Your task to perform on an android device: Open calendar and show me the fourth week of next month Image 0: 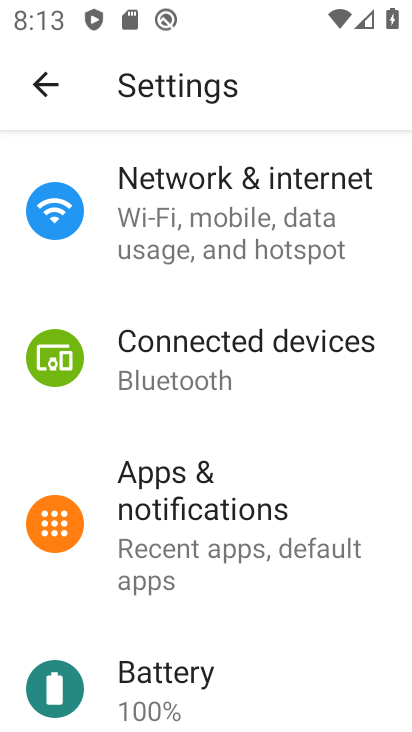
Step 0: press home button
Your task to perform on an android device: Open calendar and show me the fourth week of next month Image 1: 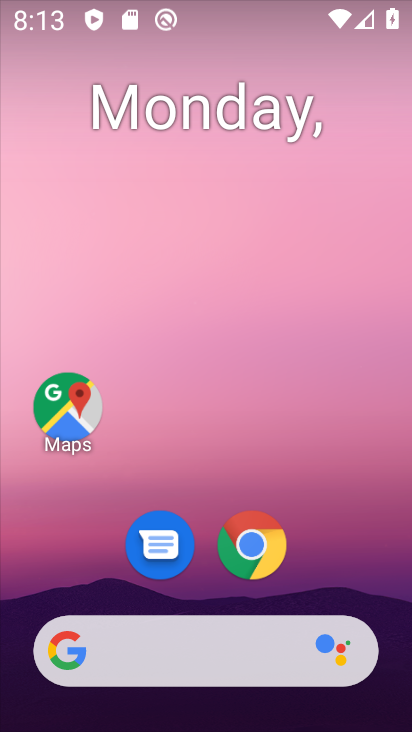
Step 1: drag from (189, 485) to (110, 272)
Your task to perform on an android device: Open calendar and show me the fourth week of next month Image 2: 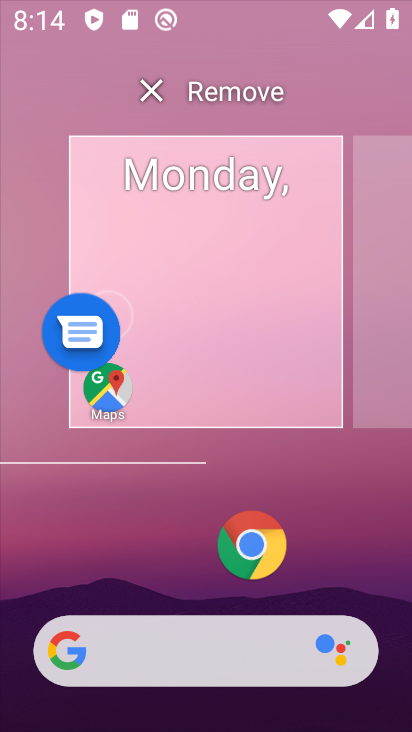
Step 2: drag from (277, 391) to (208, 11)
Your task to perform on an android device: Open calendar and show me the fourth week of next month Image 3: 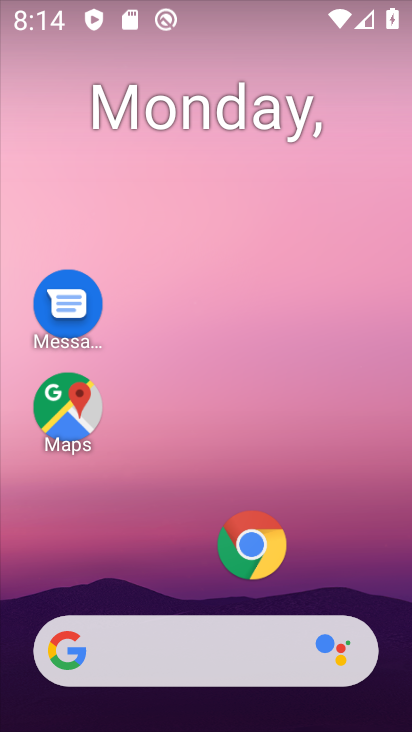
Step 3: drag from (243, 420) to (184, 1)
Your task to perform on an android device: Open calendar and show me the fourth week of next month Image 4: 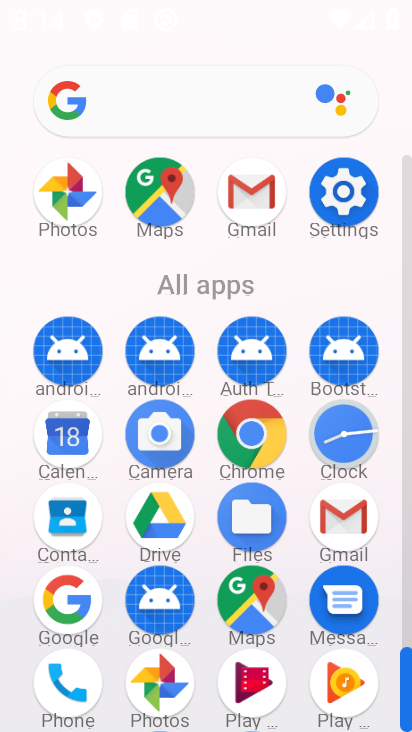
Step 4: click (86, 441)
Your task to perform on an android device: Open calendar and show me the fourth week of next month Image 5: 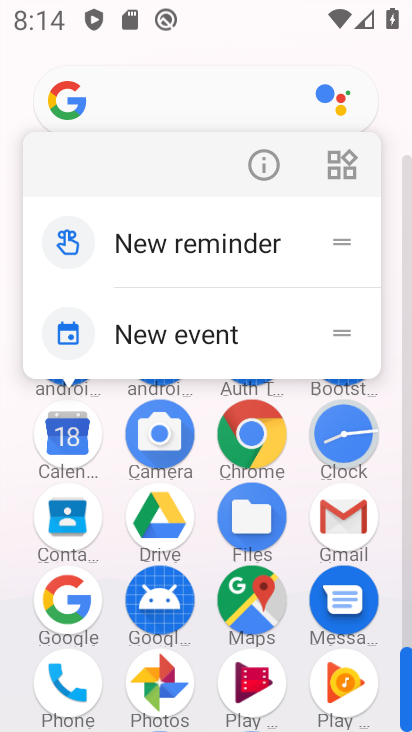
Step 5: click (74, 444)
Your task to perform on an android device: Open calendar and show me the fourth week of next month Image 6: 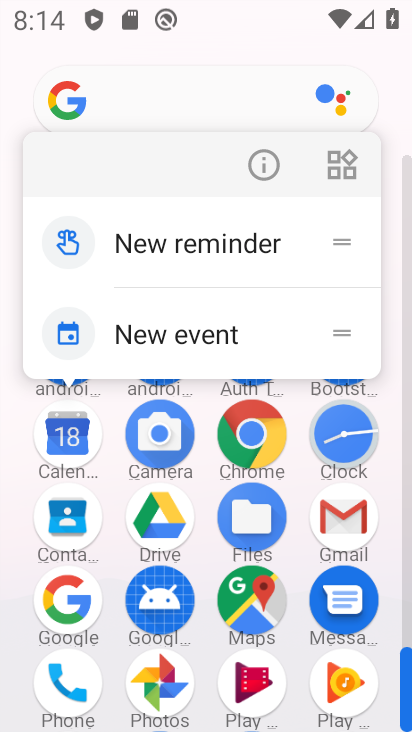
Step 6: click (72, 442)
Your task to perform on an android device: Open calendar and show me the fourth week of next month Image 7: 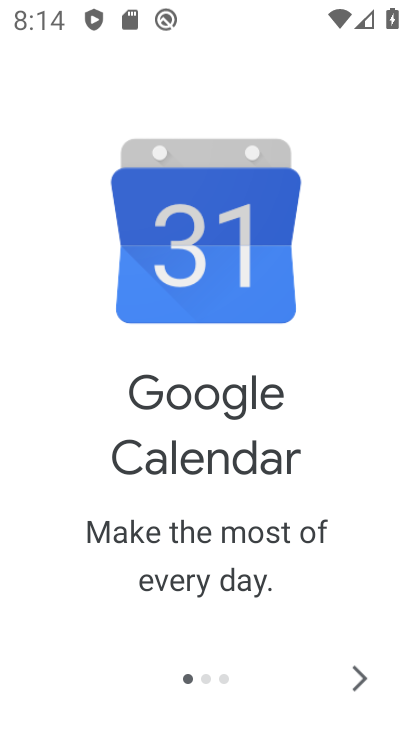
Step 7: click (349, 670)
Your task to perform on an android device: Open calendar and show me the fourth week of next month Image 8: 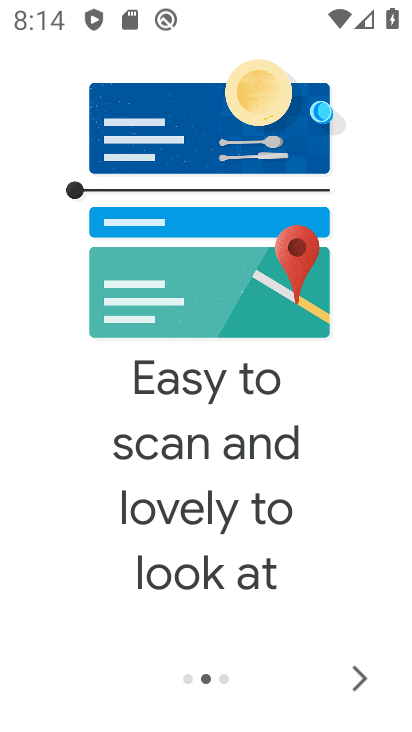
Step 8: click (348, 670)
Your task to perform on an android device: Open calendar and show me the fourth week of next month Image 9: 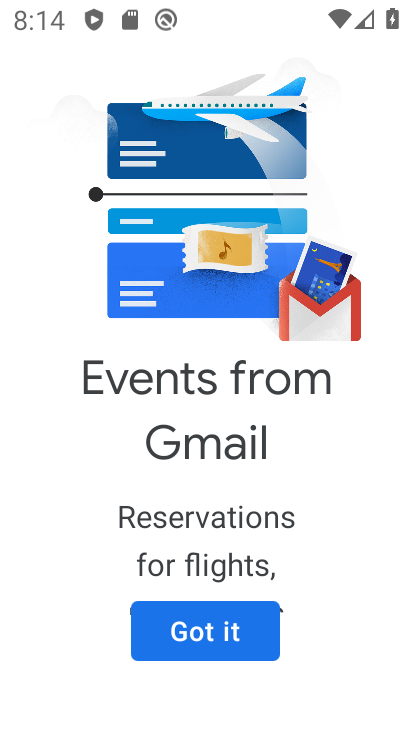
Step 9: click (231, 625)
Your task to perform on an android device: Open calendar and show me the fourth week of next month Image 10: 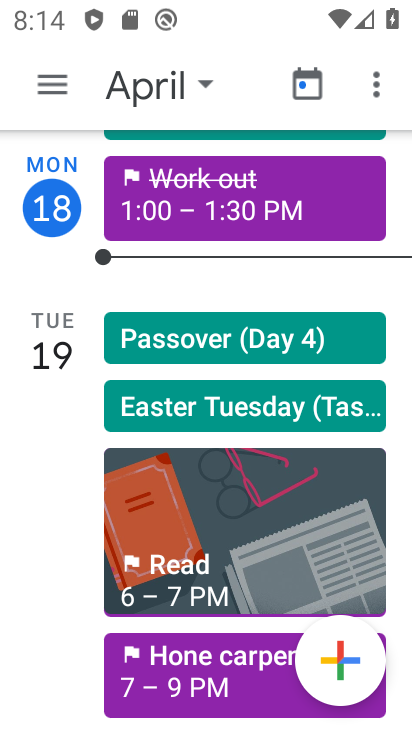
Step 10: click (31, 85)
Your task to perform on an android device: Open calendar and show me the fourth week of next month Image 11: 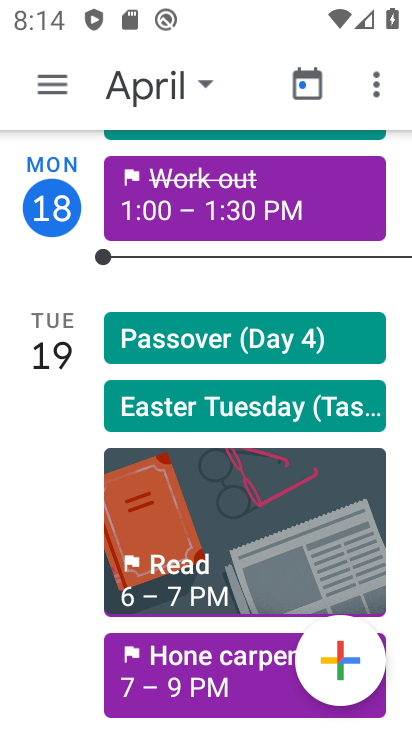
Step 11: click (58, 86)
Your task to perform on an android device: Open calendar and show me the fourth week of next month Image 12: 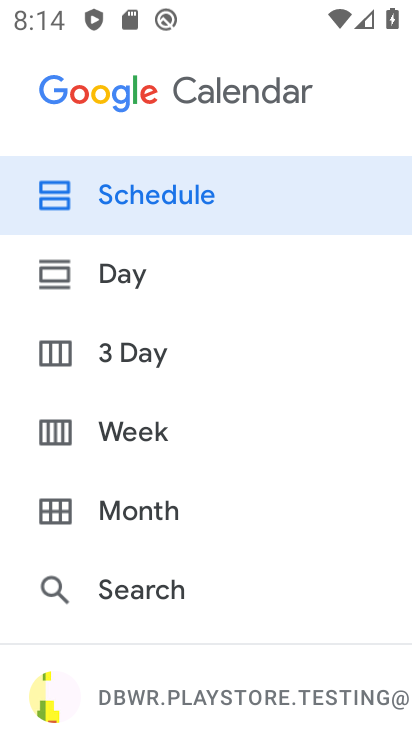
Step 12: click (171, 426)
Your task to perform on an android device: Open calendar and show me the fourth week of next month Image 13: 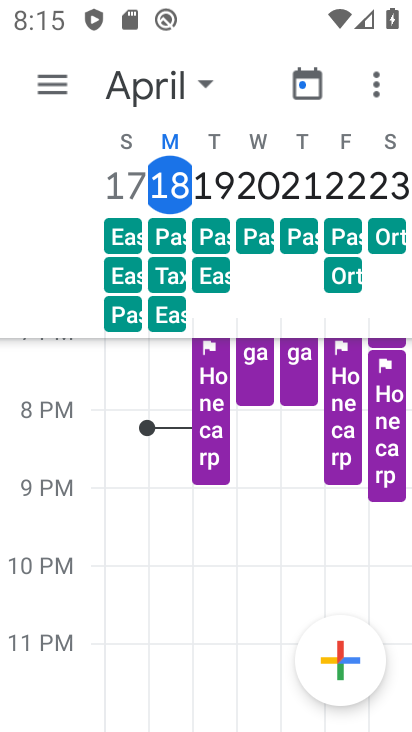
Step 13: click (181, 74)
Your task to perform on an android device: Open calendar and show me the fourth week of next month Image 14: 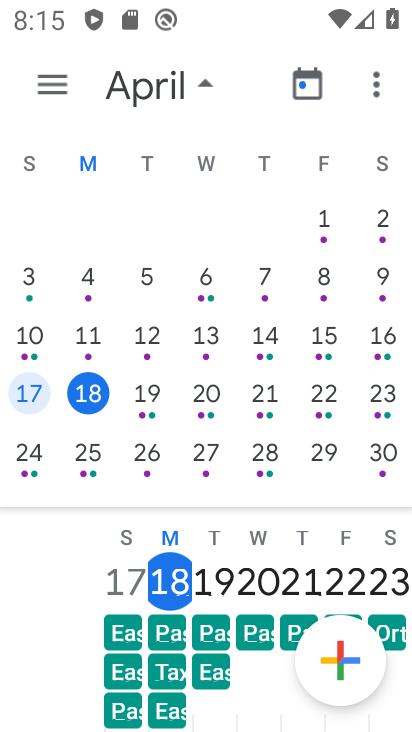
Step 14: drag from (351, 420) to (21, 462)
Your task to perform on an android device: Open calendar and show me the fourth week of next month Image 15: 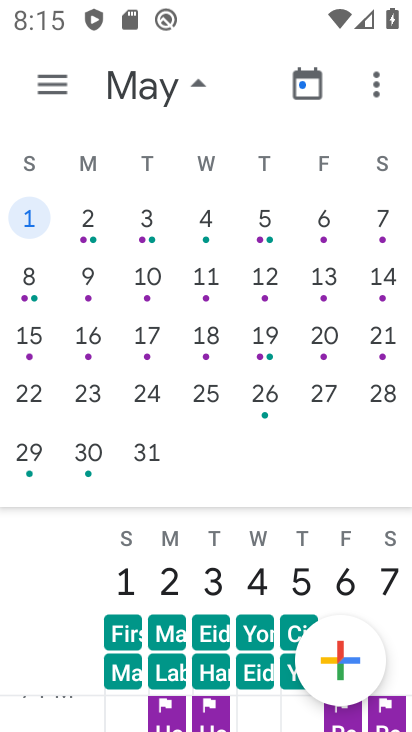
Step 15: click (178, 401)
Your task to perform on an android device: Open calendar and show me the fourth week of next month Image 16: 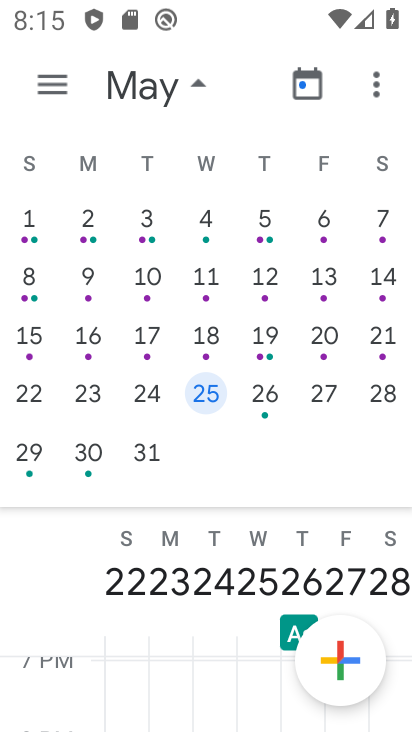
Step 16: click (149, 391)
Your task to perform on an android device: Open calendar and show me the fourth week of next month Image 17: 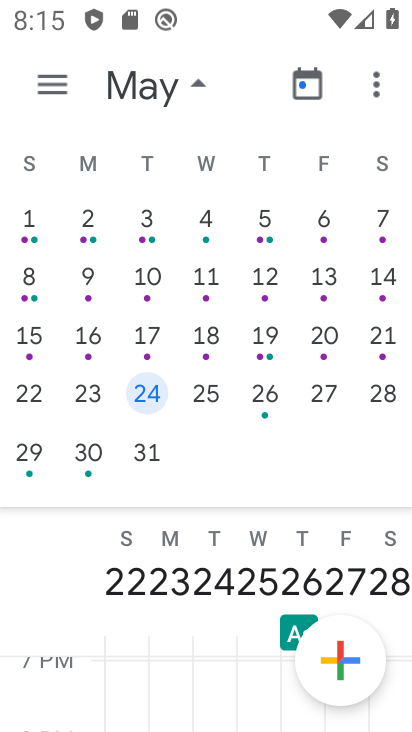
Step 17: task complete